Your task to perform on an android device: turn off priority inbox in the gmail app Image 0: 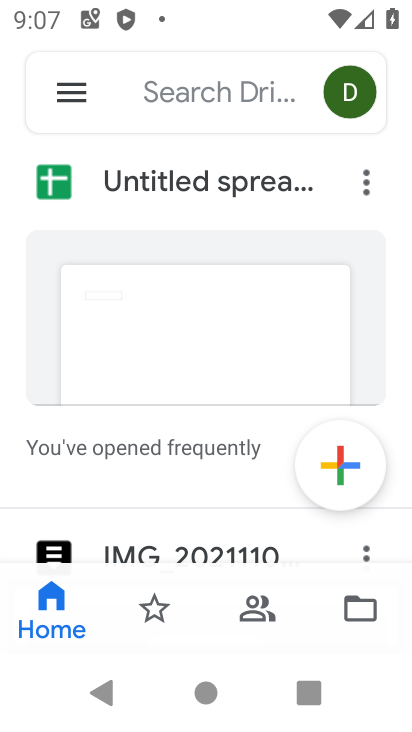
Step 0: press home button
Your task to perform on an android device: turn off priority inbox in the gmail app Image 1: 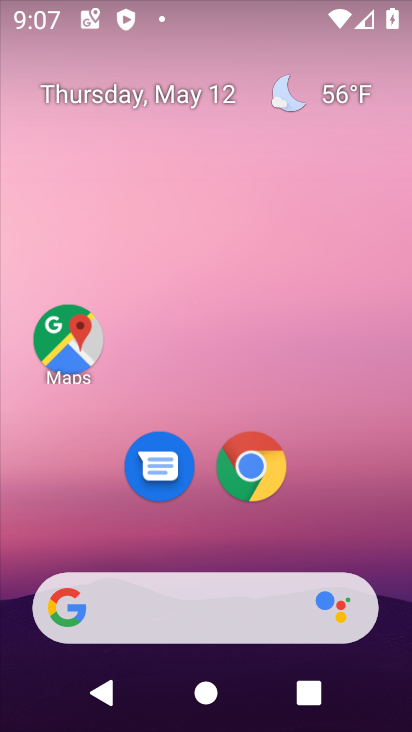
Step 1: drag from (316, 491) to (321, 84)
Your task to perform on an android device: turn off priority inbox in the gmail app Image 2: 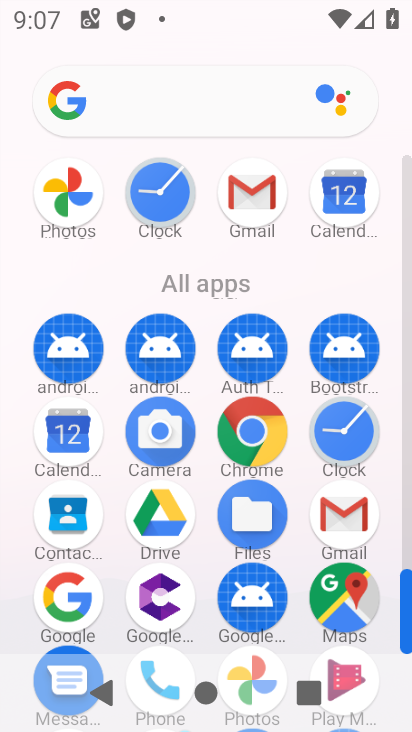
Step 2: click (259, 210)
Your task to perform on an android device: turn off priority inbox in the gmail app Image 3: 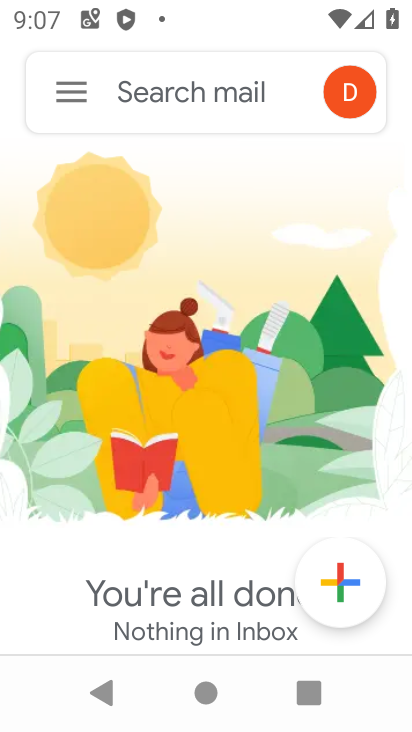
Step 3: click (75, 98)
Your task to perform on an android device: turn off priority inbox in the gmail app Image 4: 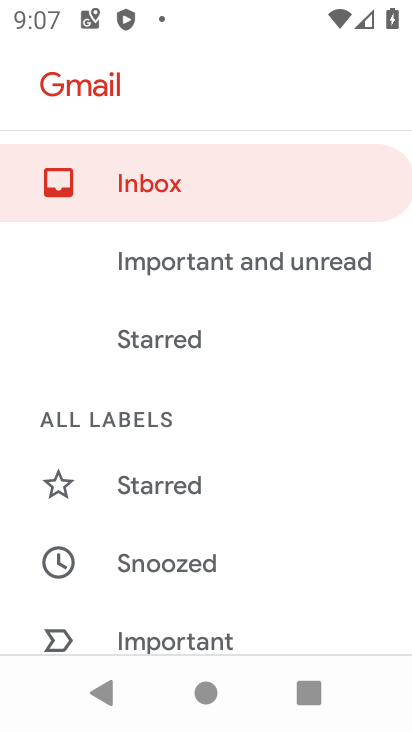
Step 4: drag from (213, 587) to (196, 205)
Your task to perform on an android device: turn off priority inbox in the gmail app Image 5: 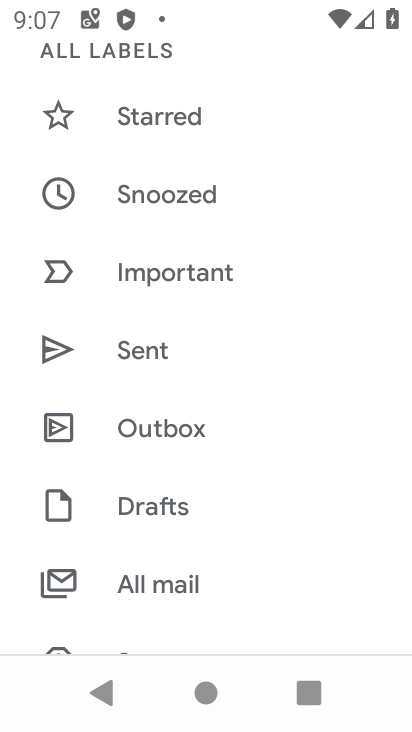
Step 5: drag from (177, 573) to (189, 133)
Your task to perform on an android device: turn off priority inbox in the gmail app Image 6: 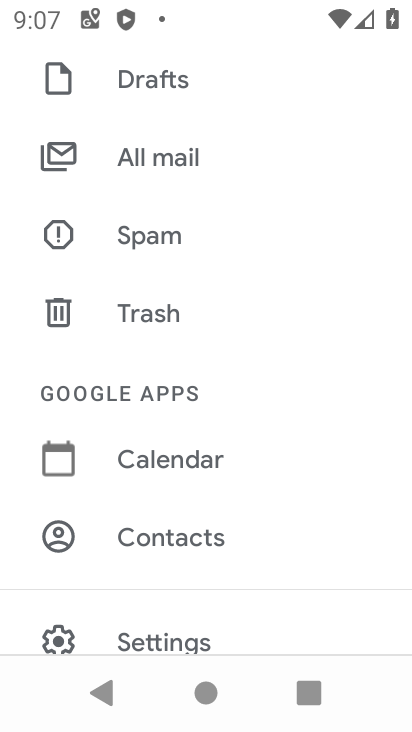
Step 6: click (170, 626)
Your task to perform on an android device: turn off priority inbox in the gmail app Image 7: 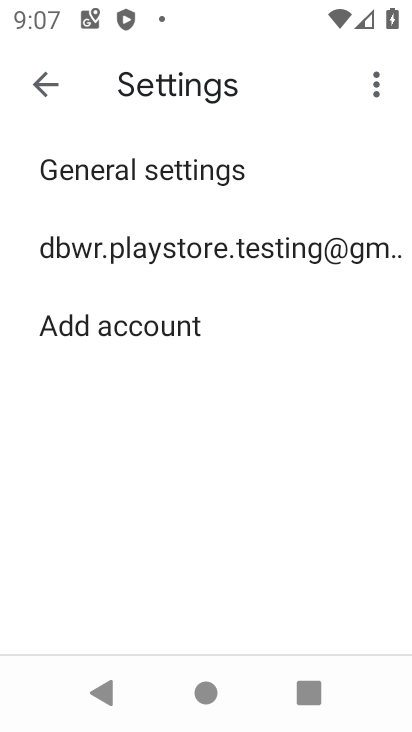
Step 7: click (181, 254)
Your task to perform on an android device: turn off priority inbox in the gmail app Image 8: 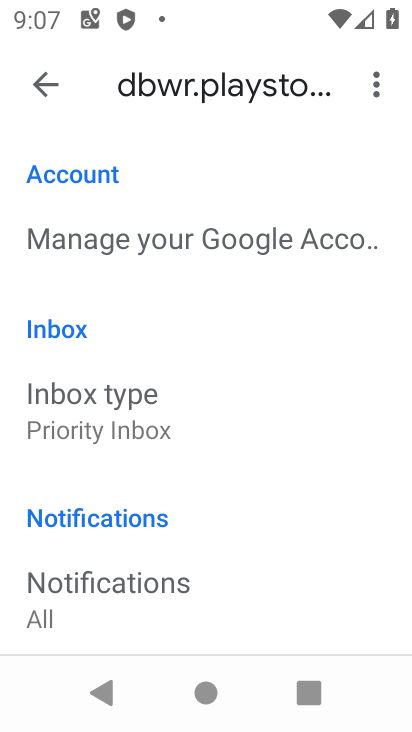
Step 8: click (112, 443)
Your task to perform on an android device: turn off priority inbox in the gmail app Image 9: 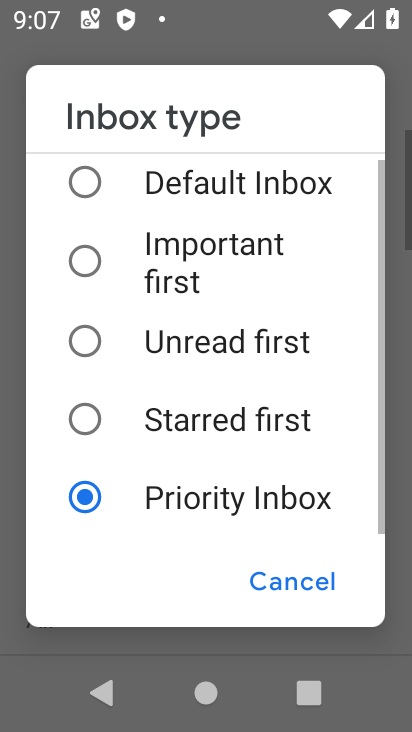
Step 9: click (184, 179)
Your task to perform on an android device: turn off priority inbox in the gmail app Image 10: 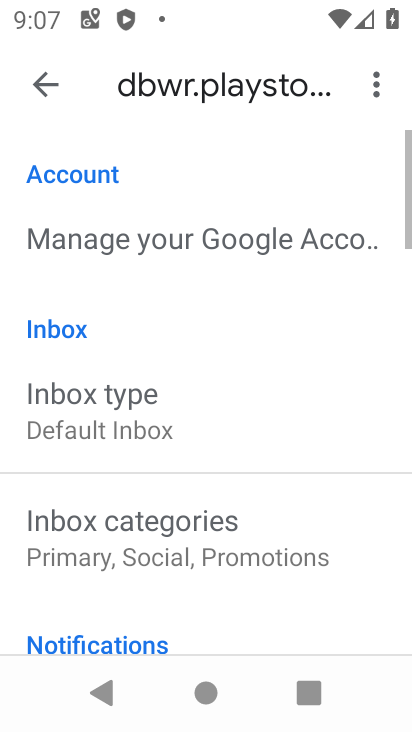
Step 10: task complete